Your task to perform on an android device: Is it going to rain today? Image 0: 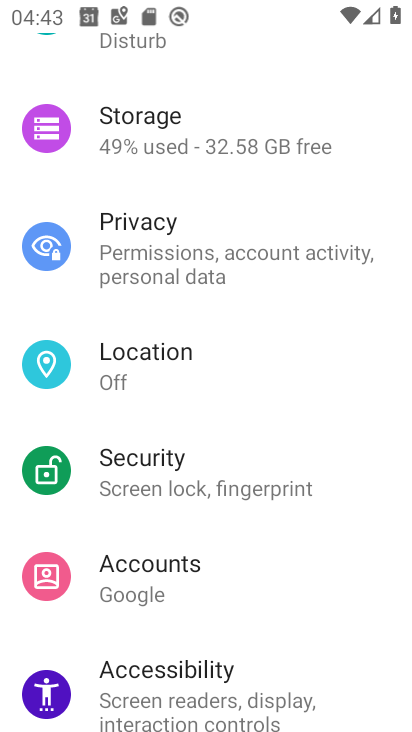
Step 0: drag from (302, 576) to (305, 219)
Your task to perform on an android device: Is it going to rain today? Image 1: 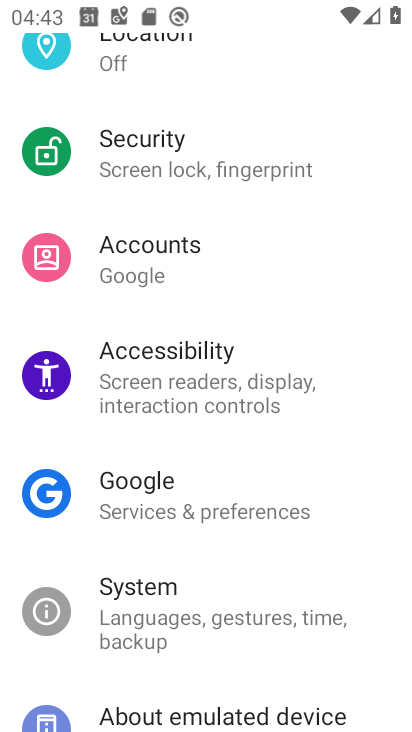
Step 1: drag from (254, 648) to (311, 272)
Your task to perform on an android device: Is it going to rain today? Image 2: 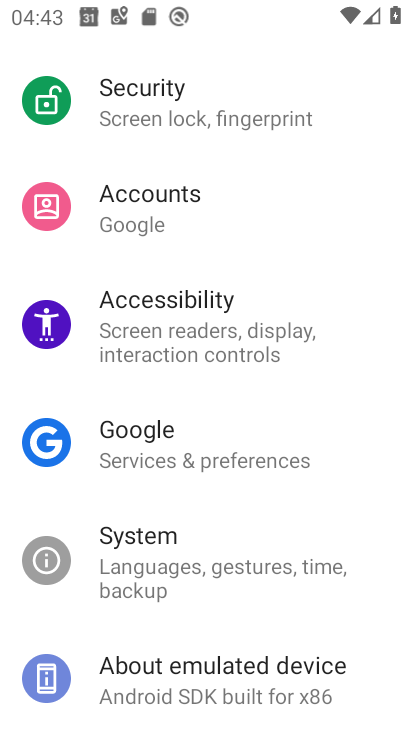
Step 2: drag from (237, 643) to (296, 200)
Your task to perform on an android device: Is it going to rain today? Image 3: 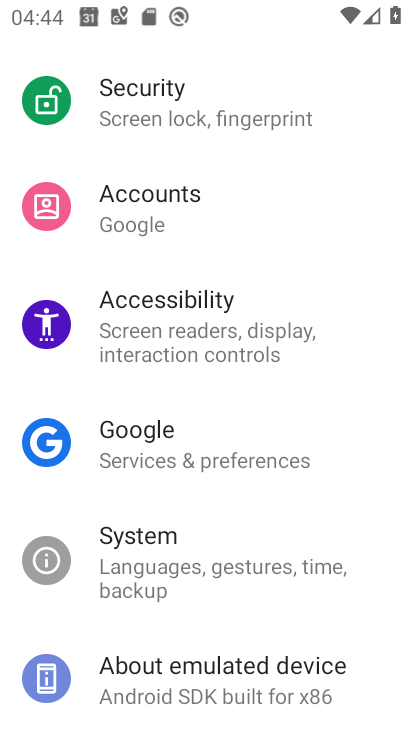
Step 3: press home button
Your task to perform on an android device: Is it going to rain today? Image 4: 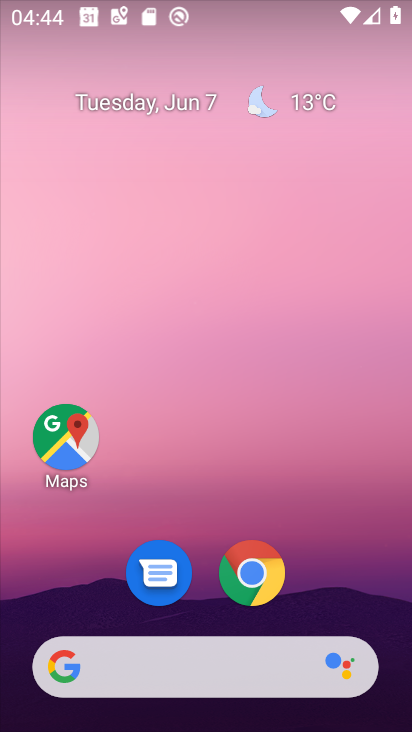
Step 4: click (249, 570)
Your task to perform on an android device: Is it going to rain today? Image 5: 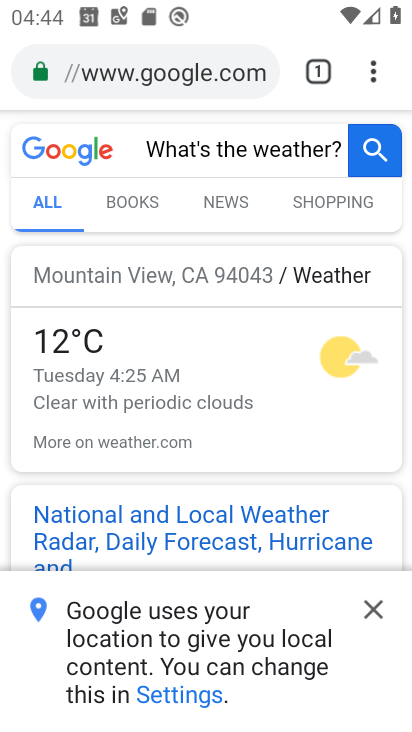
Step 5: click (244, 70)
Your task to perform on an android device: Is it going to rain today? Image 6: 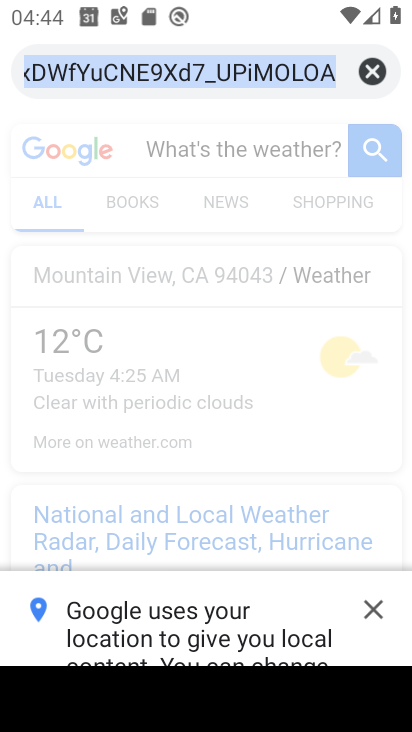
Step 6: click (376, 62)
Your task to perform on an android device: Is it going to rain today? Image 7: 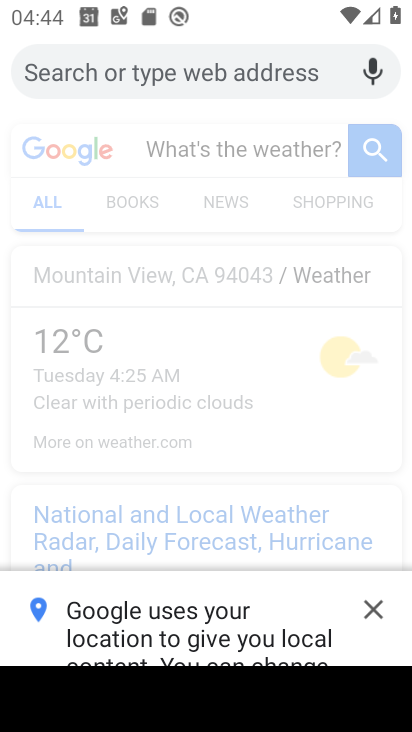
Step 7: type "Is it going to rain today?"
Your task to perform on an android device: Is it going to rain today? Image 8: 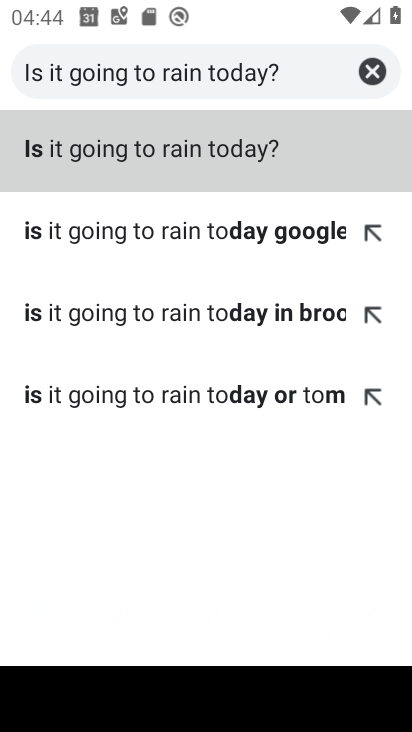
Step 8: click (181, 139)
Your task to perform on an android device: Is it going to rain today? Image 9: 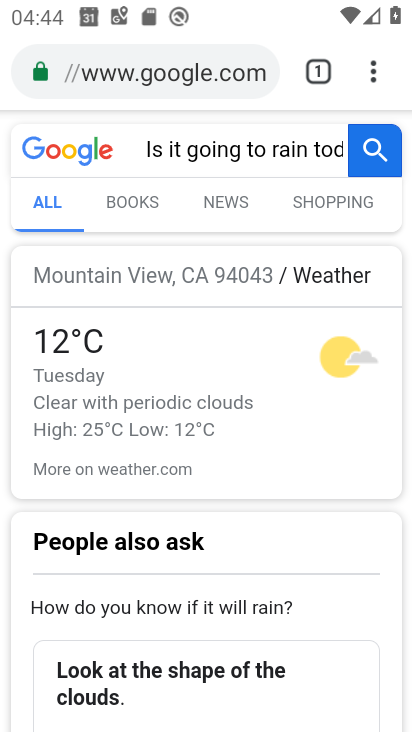
Step 9: task complete